Your task to perform on an android device: turn on wifi Image 0: 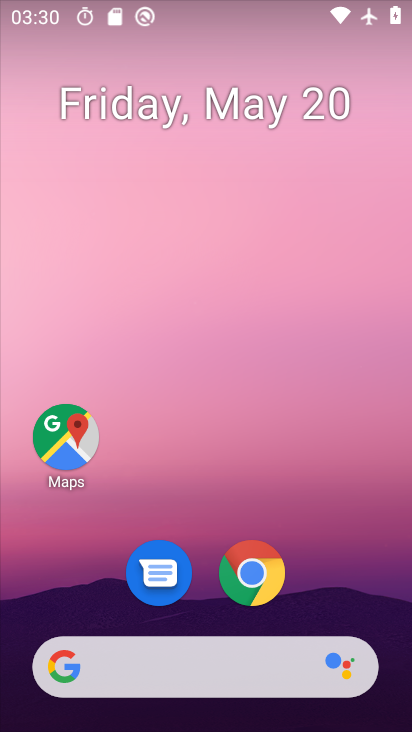
Step 0: drag from (187, 632) to (192, 269)
Your task to perform on an android device: turn on wifi Image 1: 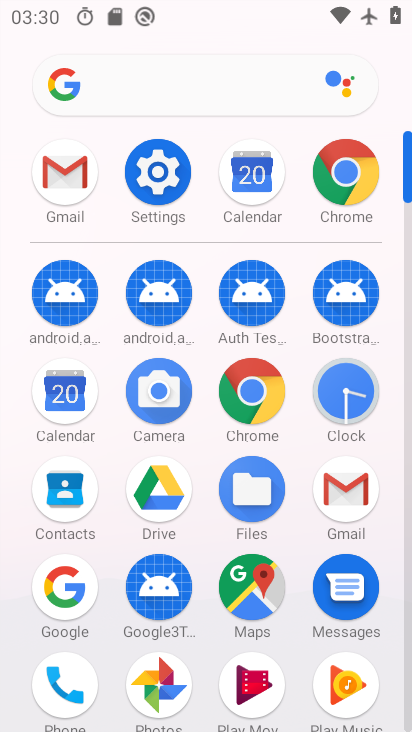
Step 1: click (183, 158)
Your task to perform on an android device: turn on wifi Image 2: 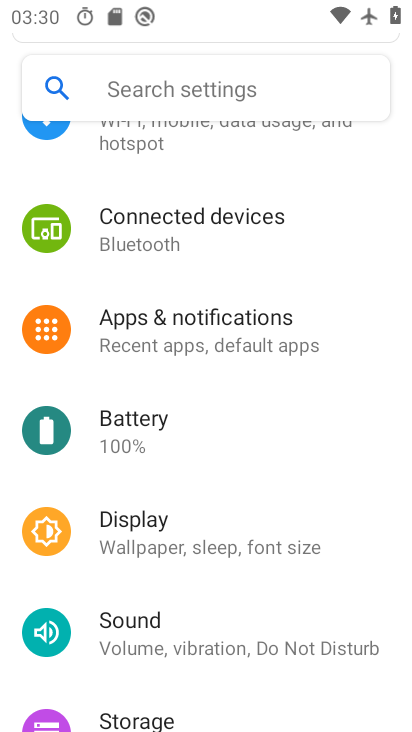
Step 2: drag from (183, 161) to (208, 548)
Your task to perform on an android device: turn on wifi Image 3: 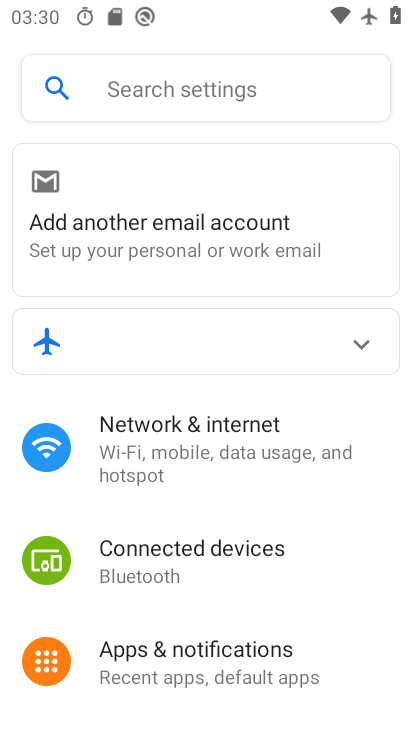
Step 3: click (184, 411)
Your task to perform on an android device: turn on wifi Image 4: 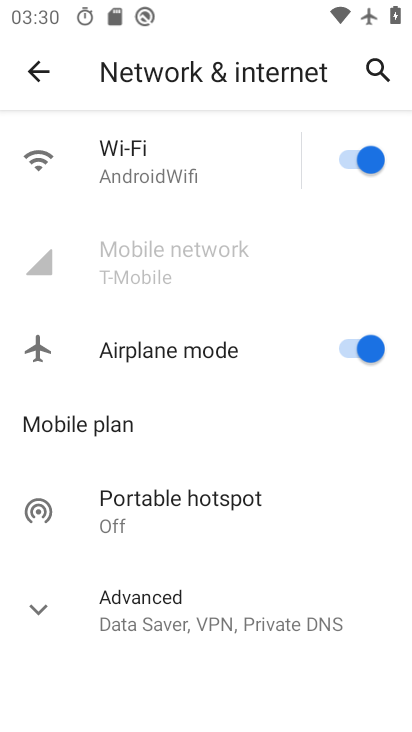
Step 4: task complete